Your task to perform on an android device: Go to Maps Image 0: 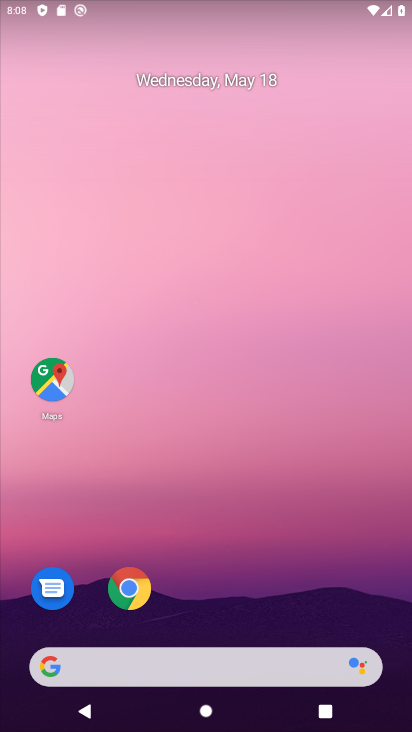
Step 0: click (54, 379)
Your task to perform on an android device: Go to Maps Image 1: 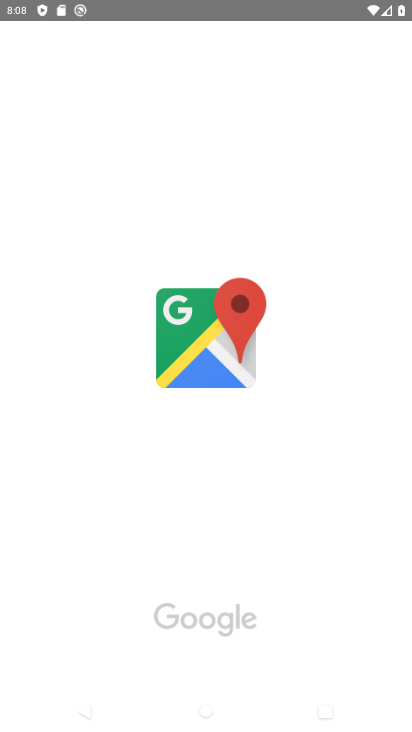
Step 1: click (54, 379)
Your task to perform on an android device: Go to Maps Image 2: 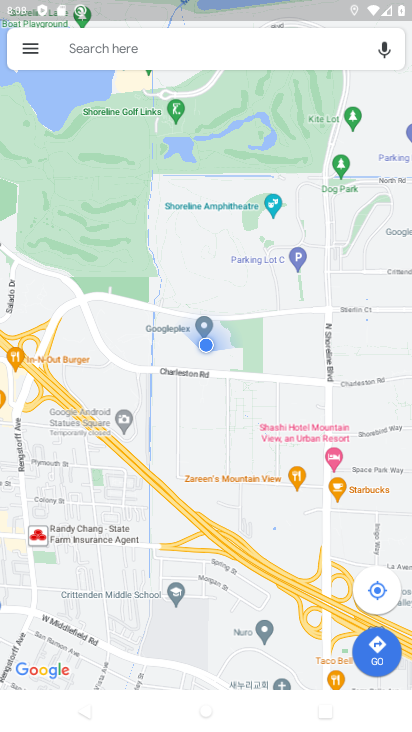
Step 2: task complete